Your task to perform on an android device: What's the weather going to be this weekend? Image 0: 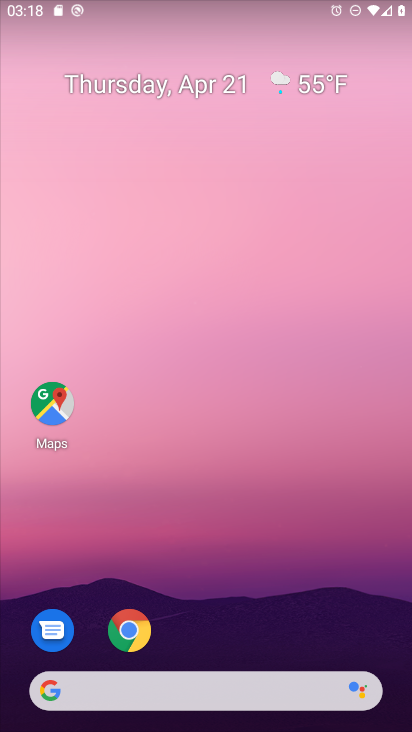
Step 0: drag from (358, 642) to (316, 36)
Your task to perform on an android device: What's the weather going to be this weekend? Image 1: 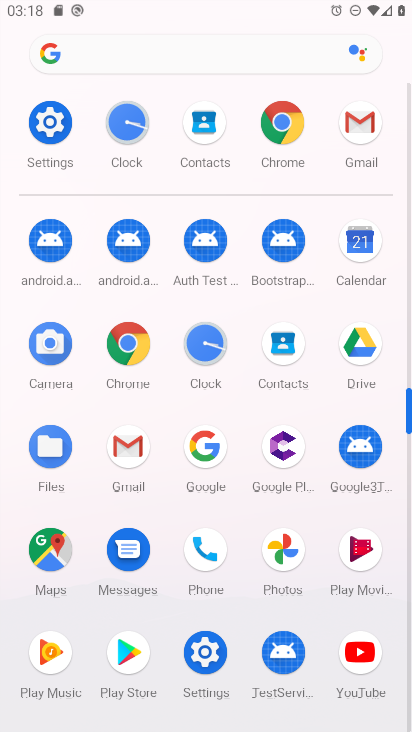
Step 1: click (356, 254)
Your task to perform on an android device: What's the weather going to be this weekend? Image 2: 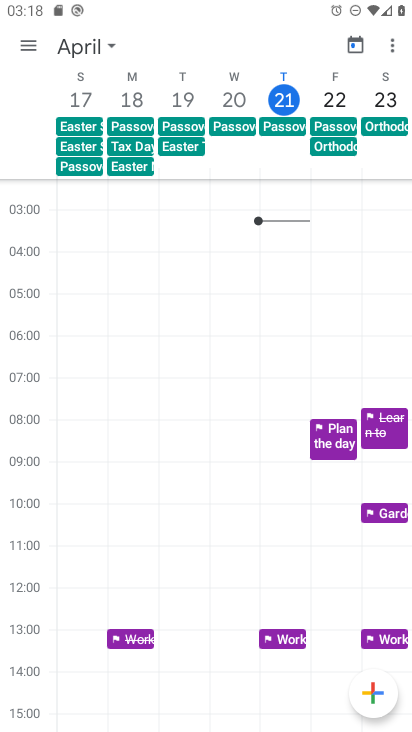
Step 2: press home button
Your task to perform on an android device: What's the weather going to be this weekend? Image 3: 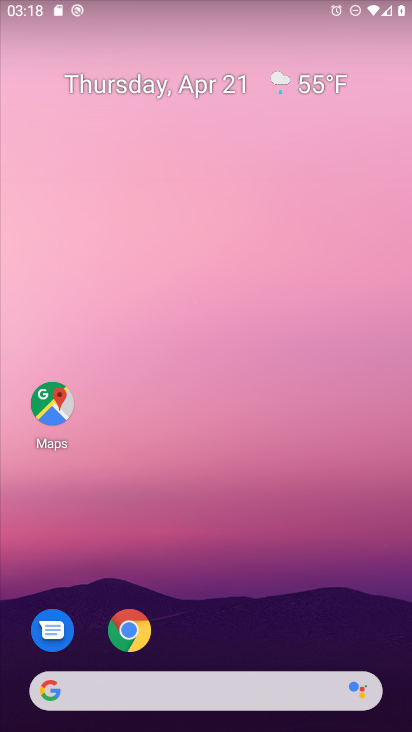
Step 3: click (187, 703)
Your task to perform on an android device: What's the weather going to be this weekend? Image 4: 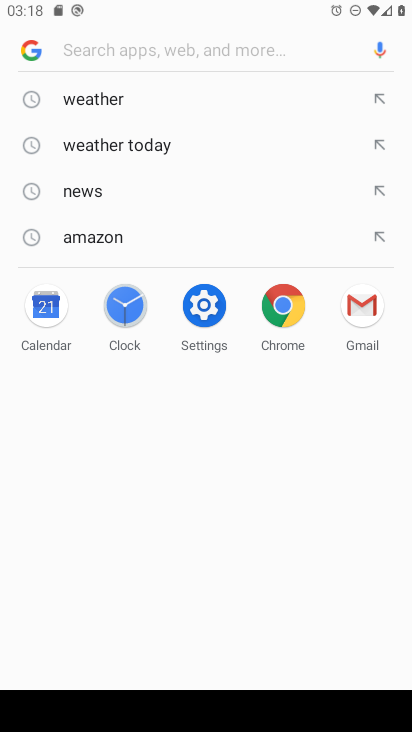
Step 4: click (174, 94)
Your task to perform on an android device: What's the weather going to be this weekend? Image 5: 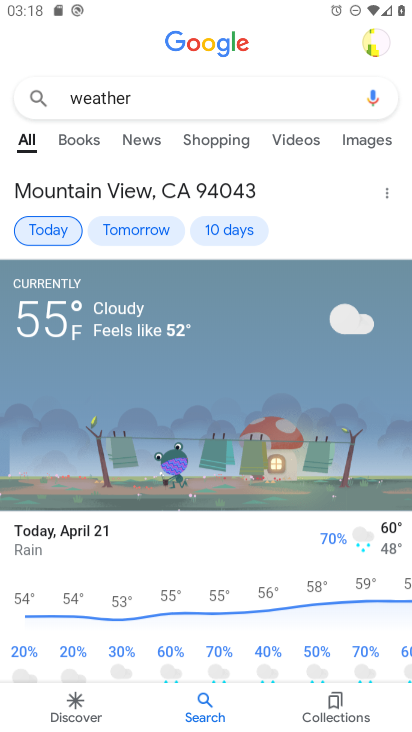
Step 5: click (210, 224)
Your task to perform on an android device: What's the weather going to be this weekend? Image 6: 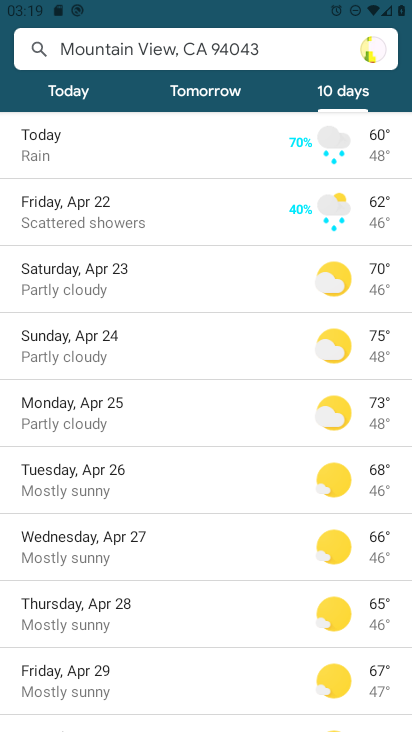
Step 6: task complete